Your task to perform on an android device: Open internet settings Image 0: 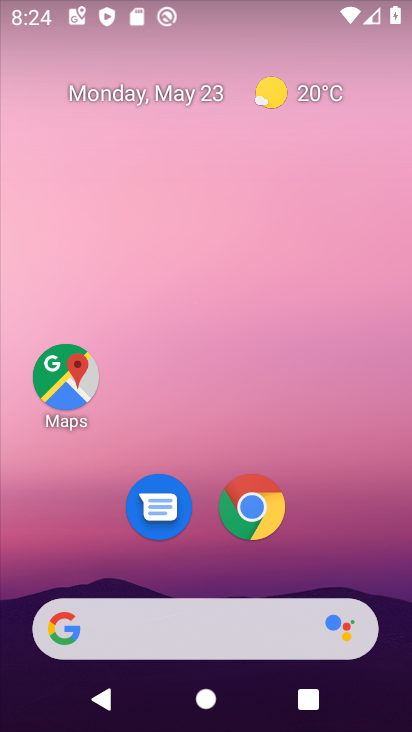
Step 0: drag from (362, 588) to (295, 1)
Your task to perform on an android device: Open internet settings Image 1: 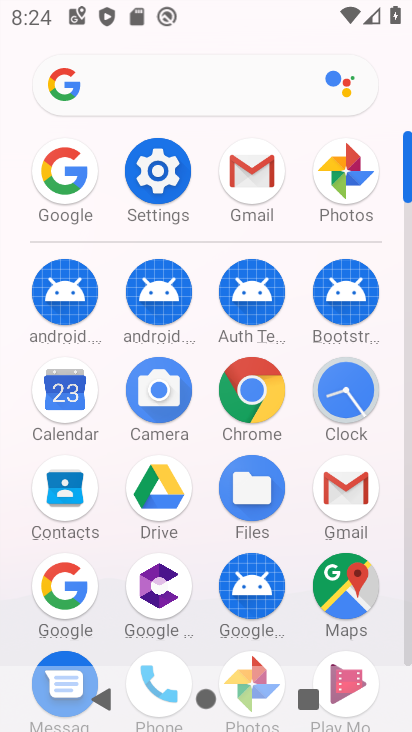
Step 1: click (156, 178)
Your task to perform on an android device: Open internet settings Image 2: 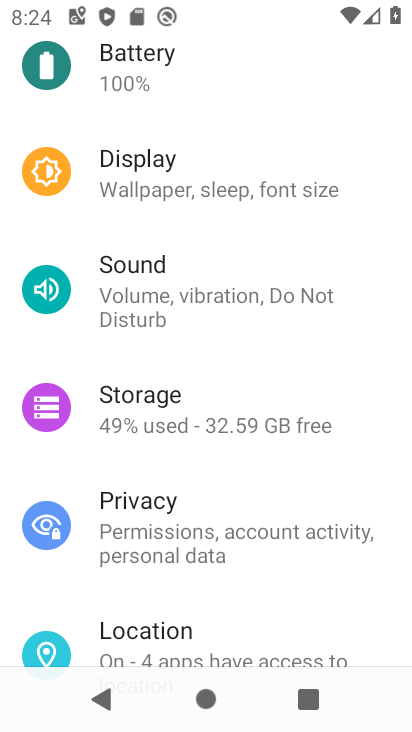
Step 2: drag from (246, 119) to (232, 520)
Your task to perform on an android device: Open internet settings Image 3: 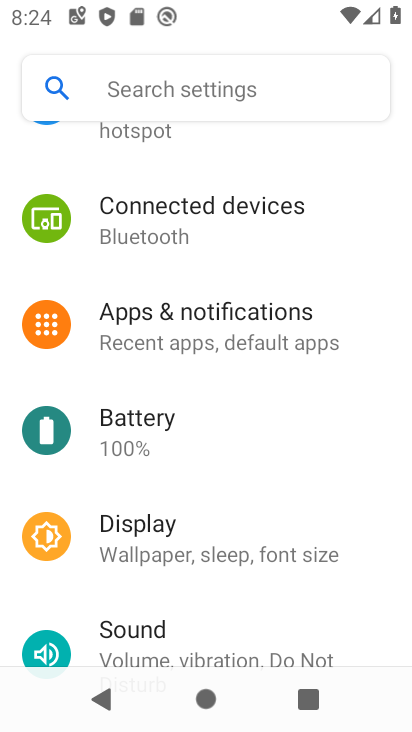
Step 3: drag from (231, 247) to (227, 565)
Your task to perform on an android device: Open internet settings Image 4: 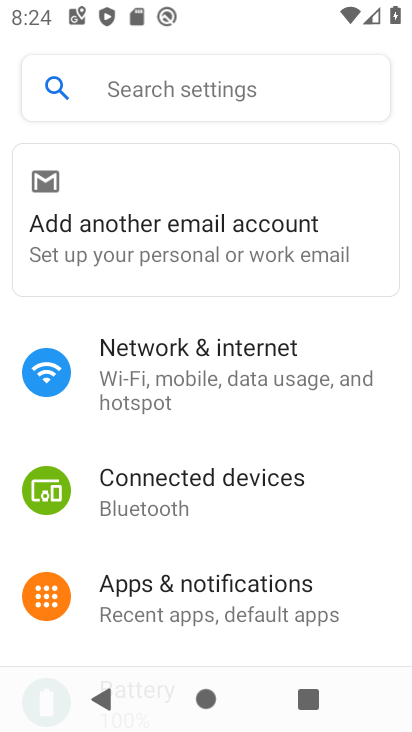
Step 4: click (172, 378)
Your task to perform on an android device: Open internet settings Image 5: 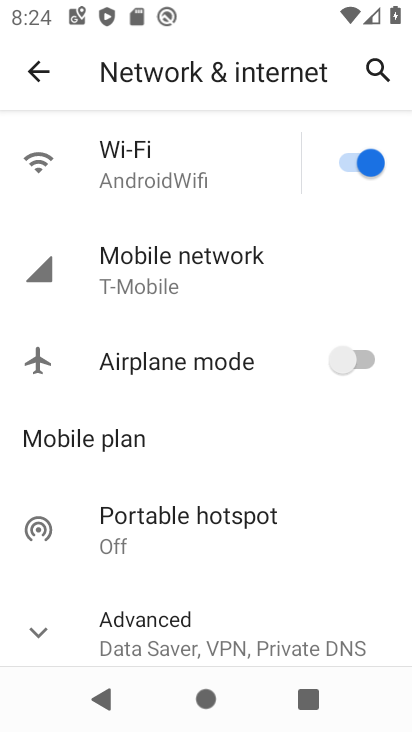
Step 5: task complete